Your task to perform on an android device: Open Maps and search for coffee Image 0: 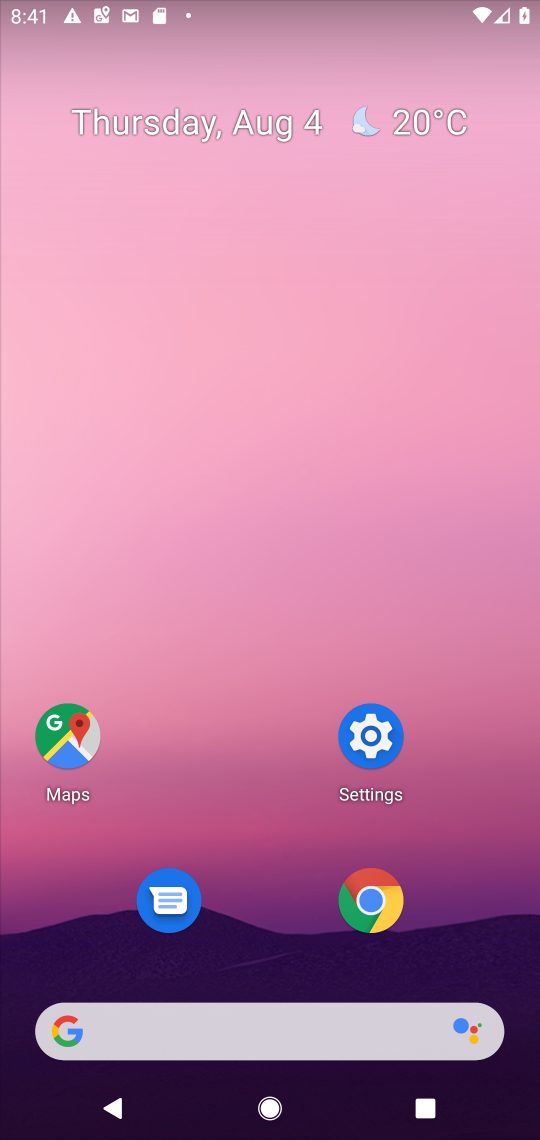
Step 0: click (54, 745)
Your task to perform on an android device: Open Maps and search for coffee Image 1: 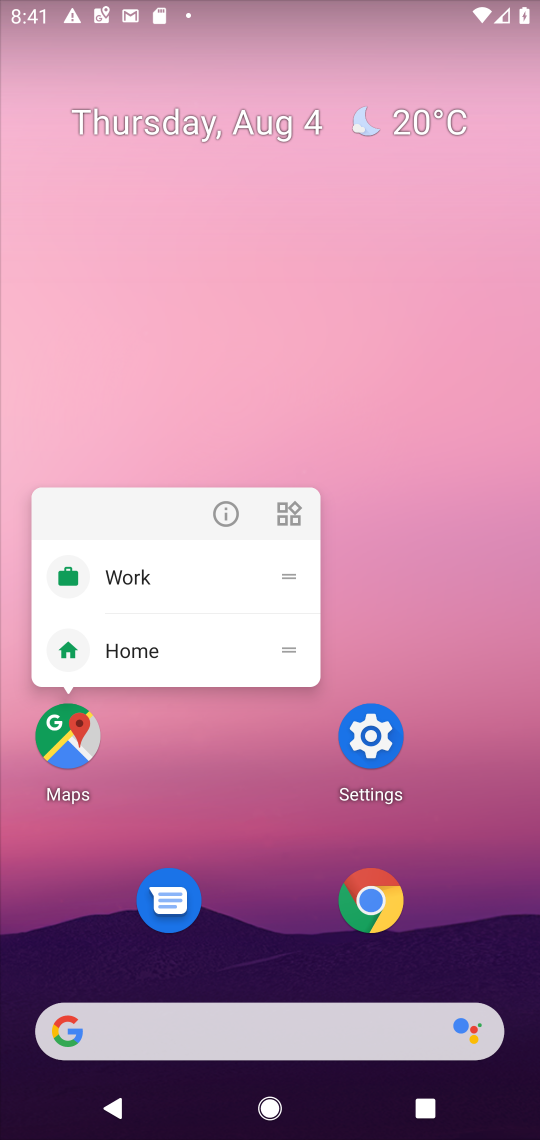
Step 1: click (63, 739)
Your task to perform on an android device: Open Maps and search for coffee Image 2: 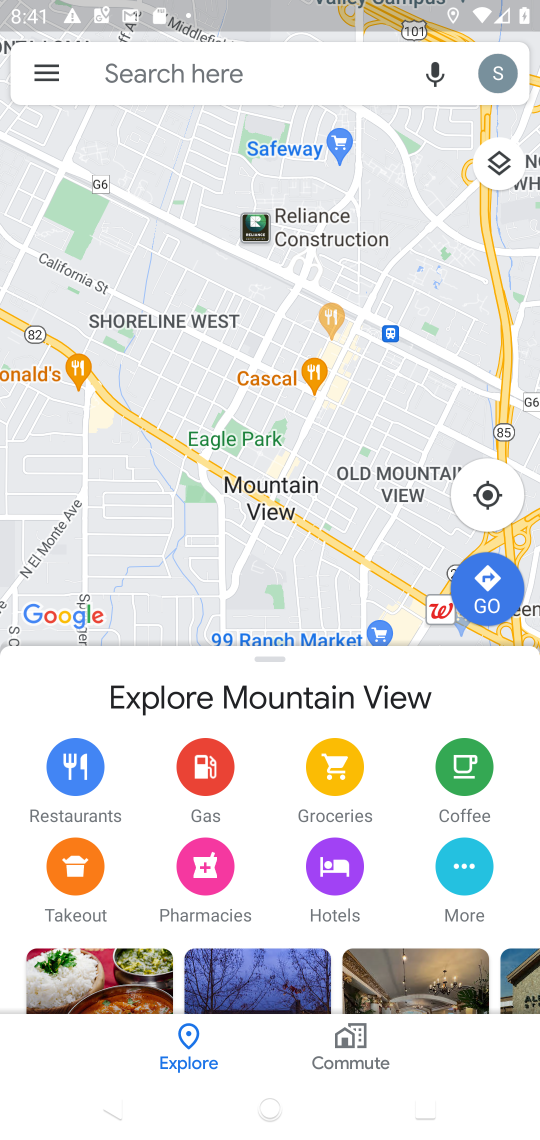
Step 2: click (219, 76)
Your task to perform on an android device: Open Maps and search for coffee Image 3: 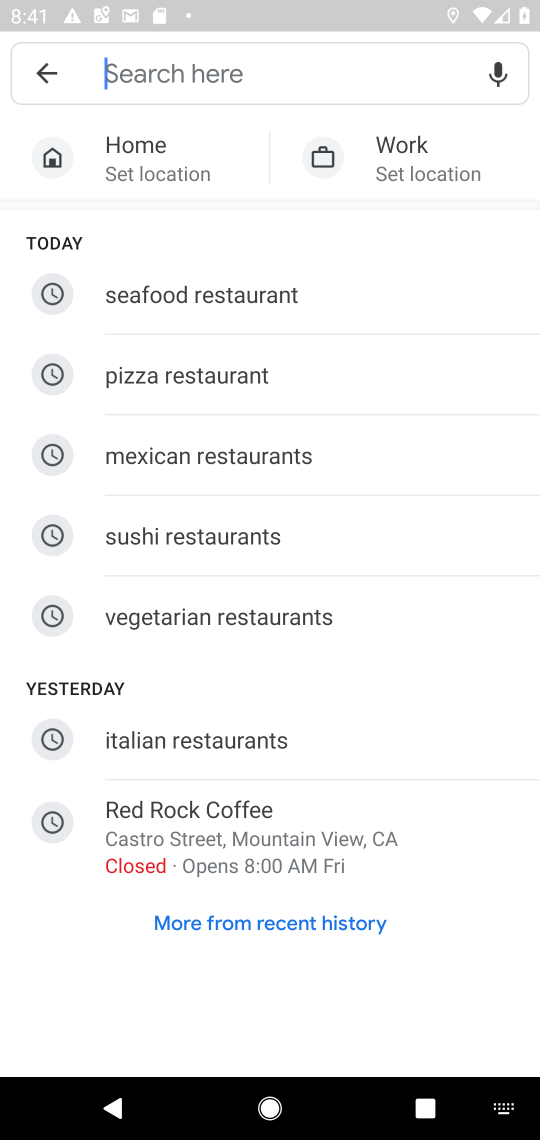
Step 3: type "coffee"
Your task to perform on an android device: Open Maps and search for coffee Image 4: 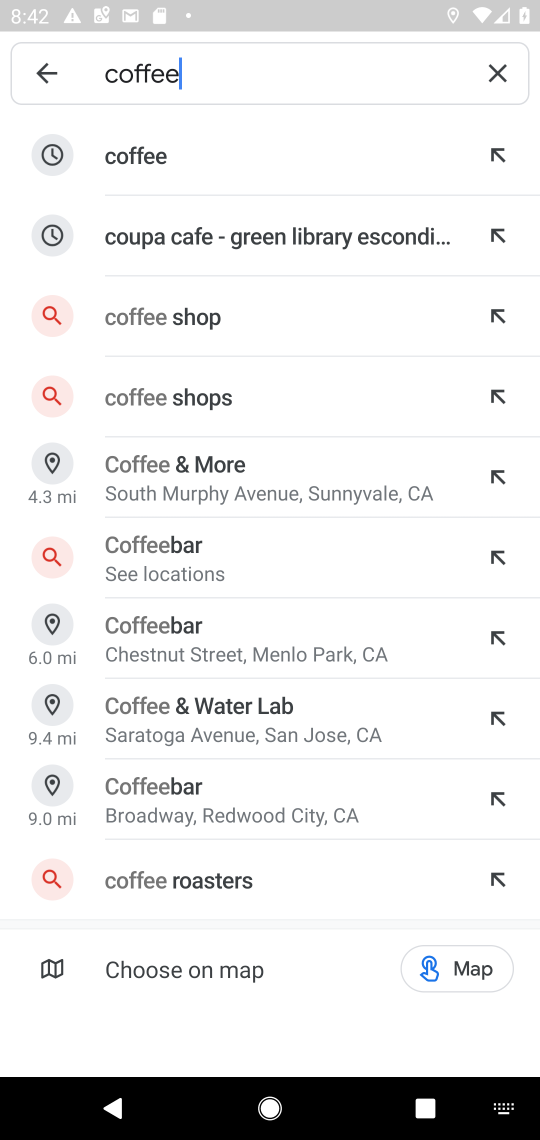
Step 4: click (162, 163)
Your task to perform on an android device: Open Maps and search for coffee Image 5: 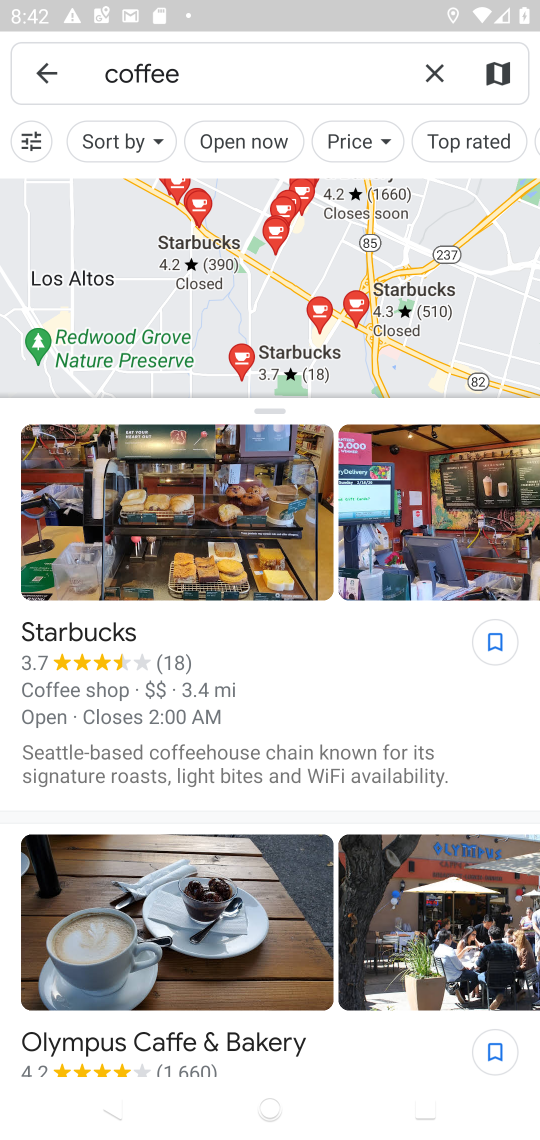
Step 5: task complete